Your task to perform on an android device: open app "Fetch Rewards" (install if not already installed) Image 0: 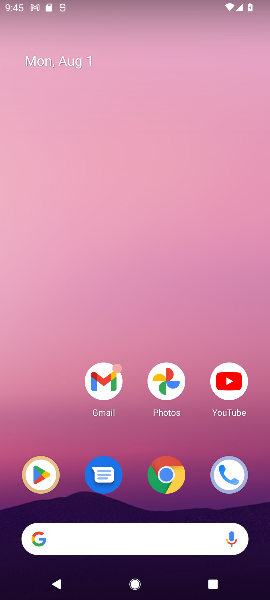
Step 0: drag from (183, 516) to (183, 46)
Your task to perform on an android device: open app "Fetch Rewards" (install if not already installed) Image 1: 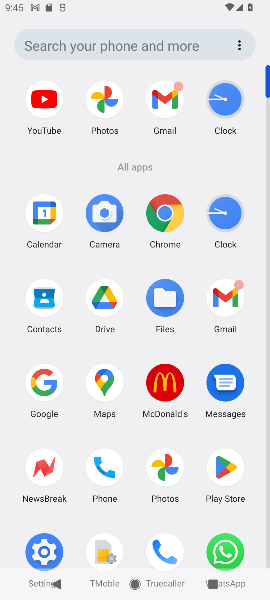
Step 1: click (219, 473)
Your task to perform on an android device: open app "Fetch Rewards" (install if not already installed) Image 2: 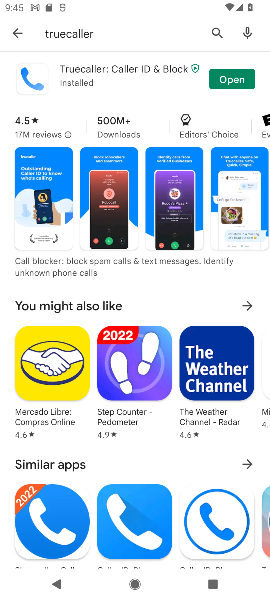
Step 2: click (19, 40)
Your task to perform on an android device: open app "Fetch Rewards" (install if not already installed) Image 3: 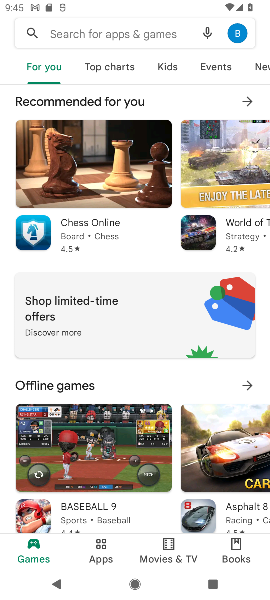
Step 3: click (71, 33)
Your task to perform on an android device: open app "Fetch Rewards" (install if not already installed) Image 4: 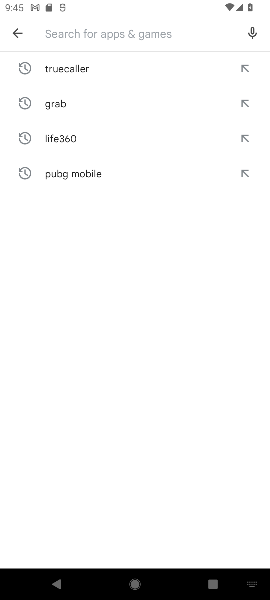
Step 4: type "Fetch Rewards"
Your task to perform on an android device: open app "Fetch Rewards" (install if not already installed) Image 5: 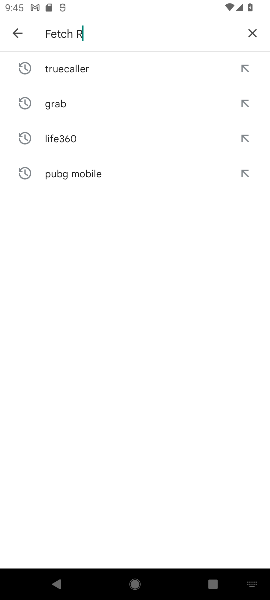
Step 5: type ""
Your task to perform on an android device: open app "Fetch Rewards" (install if not already installed) Image 6: 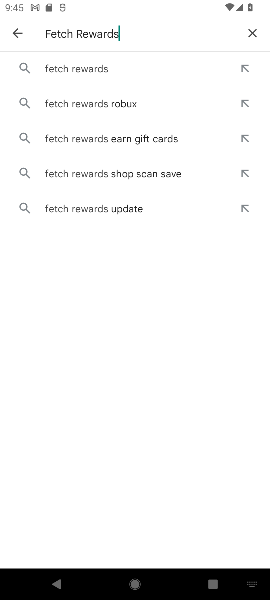
Step 6: click (78, 70)
Your task to perform on an android device: open app "Fetch Rewards" (install if not already installed) Image 7: 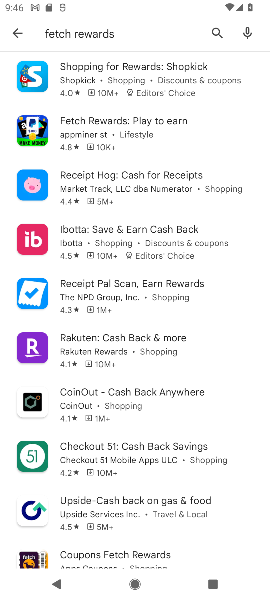
Step 7: click (121, 135)
Your task to perform on an android device: open app "Fetch Rewards" (install if not already installed) Image 8: 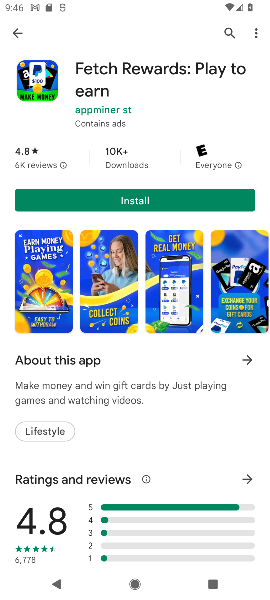
Step 8: click (145, 198)
Your task to perform on an android device: open app "Fetch Rewards" (install if not already installed) Image 9: 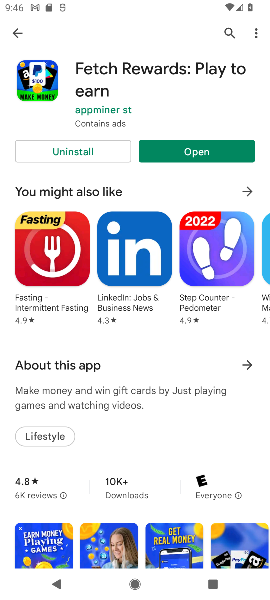
Step 9: click (214, 152)
Your task to perform on an android device: open app "Fetch Rewards" (install if not already installed) Image 10: 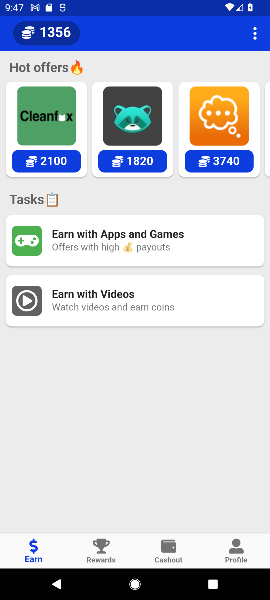
Step 10: task complete